Your task to perform on an android device: Show me popular games on the Play Store Image 0: 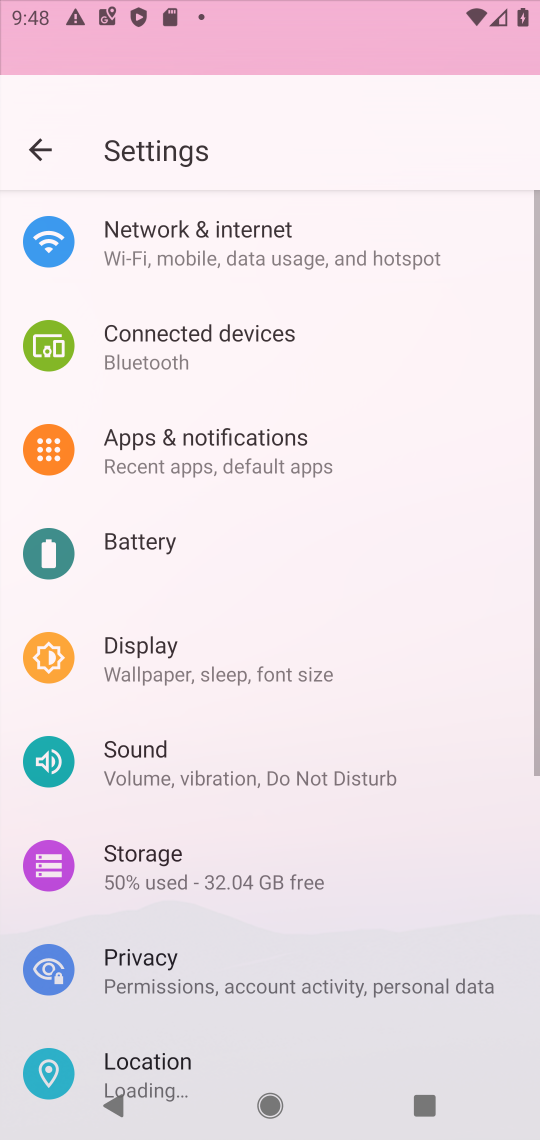
Step 0: press home button
Your task to perform on an android device: Show me popular games on the Play Store Image 1: 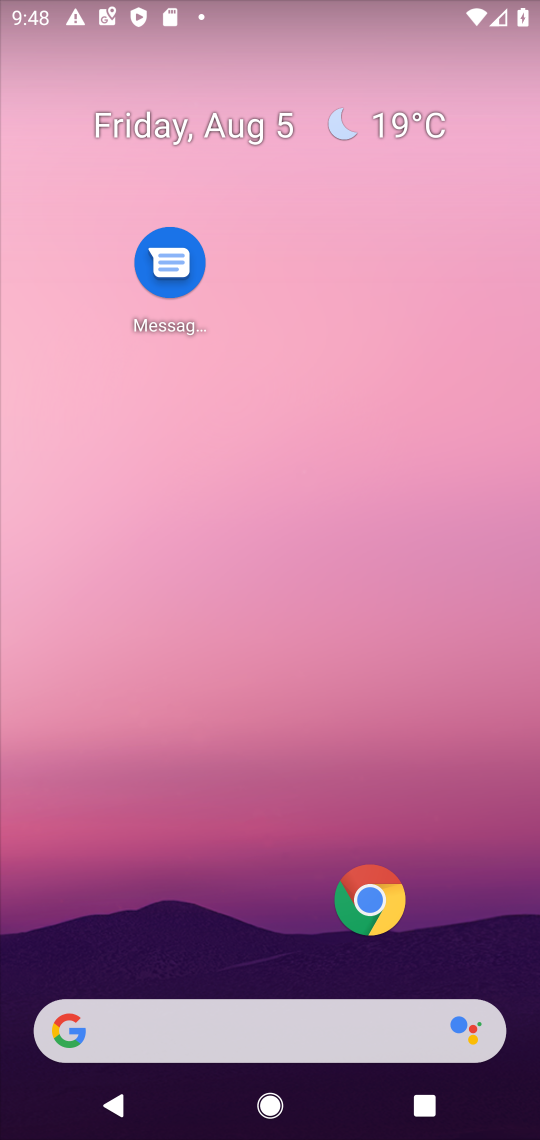
Step 1: press home button
Your task to perform on an android device: Show me popular games on the Play Store Image 2: 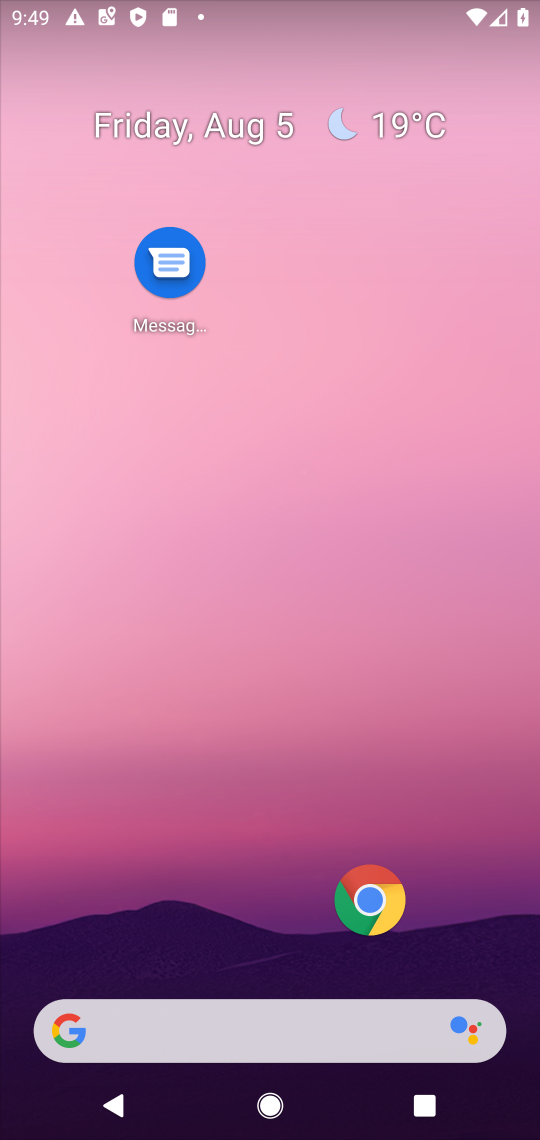
Step 2: drag from (197, 913) to (188, 175)
Your task to perform on an android device: Show me popular games on the Play Store Image 3: 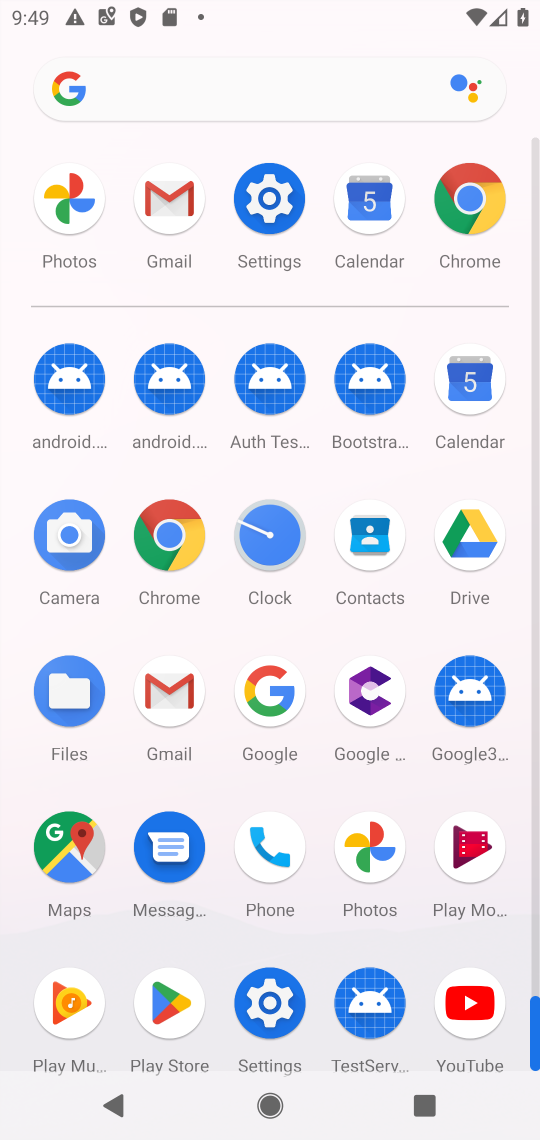
Step 3: click (481, 205)
Your task to perform on an android device: Show me popular games on the Play Store Image 4: 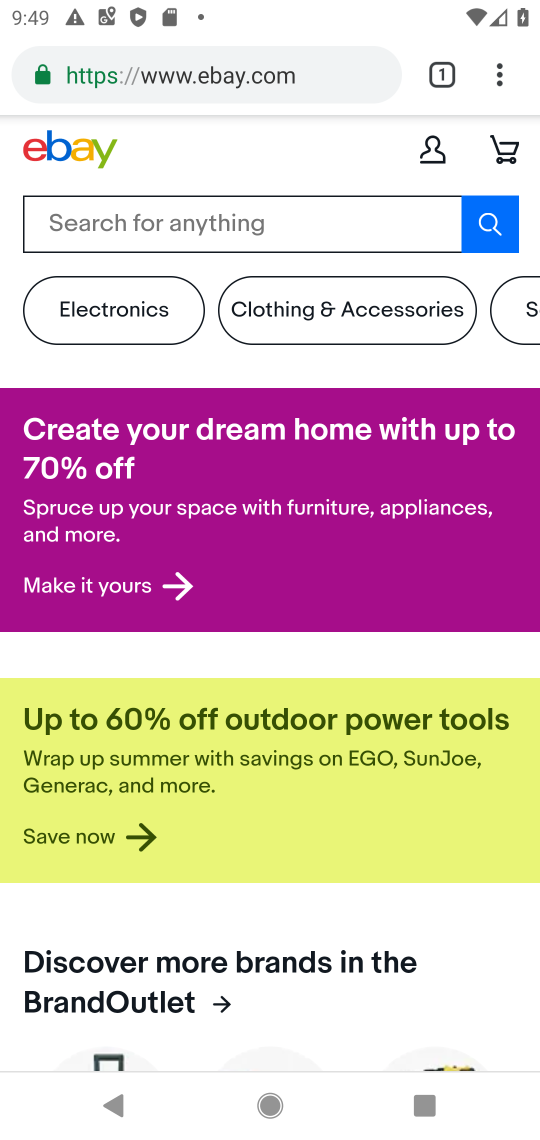
Step 4: press home button
Your task to perform on an android device: Show me popular games on the Play Store Image 5: 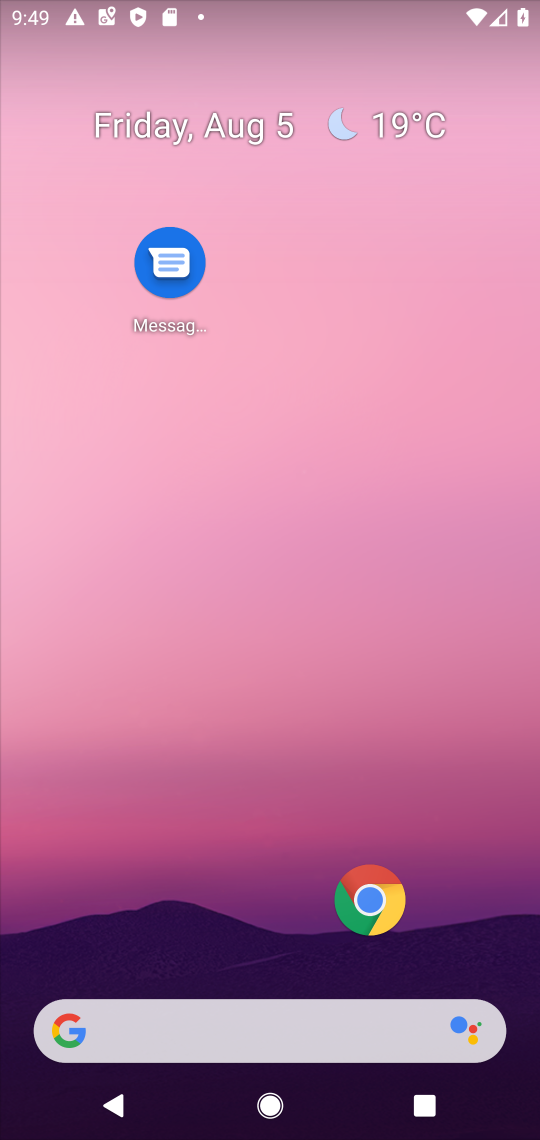
Step 5: drag from (112, 1030) to (114, 651)
Your task to perform on an android device: Show me popular games on the Play Store Image 6: 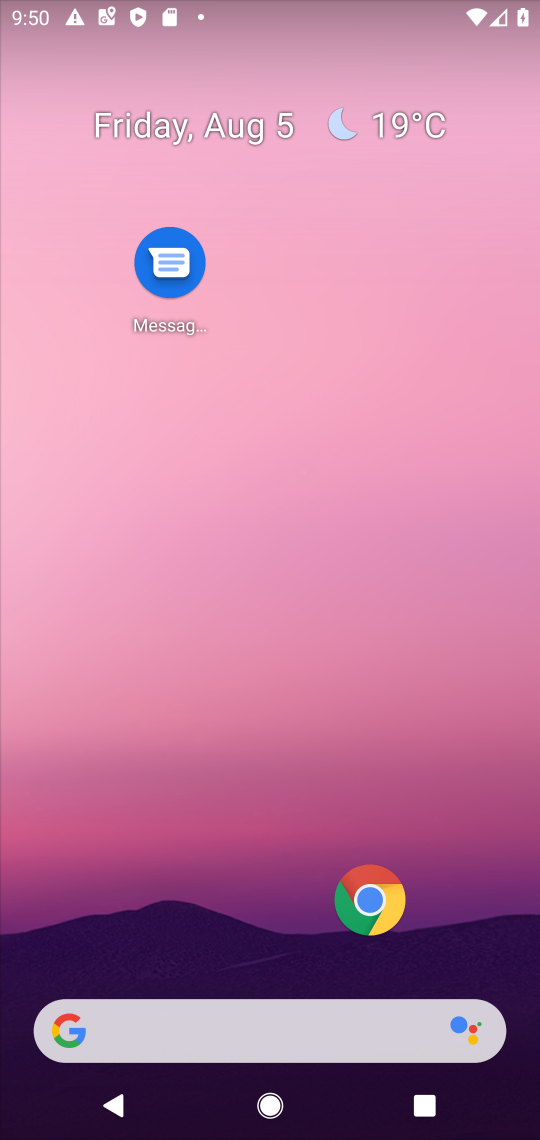
Step 6: press home button
Your task to perform on an android device: Show me popular games on the Play Store Image 7: 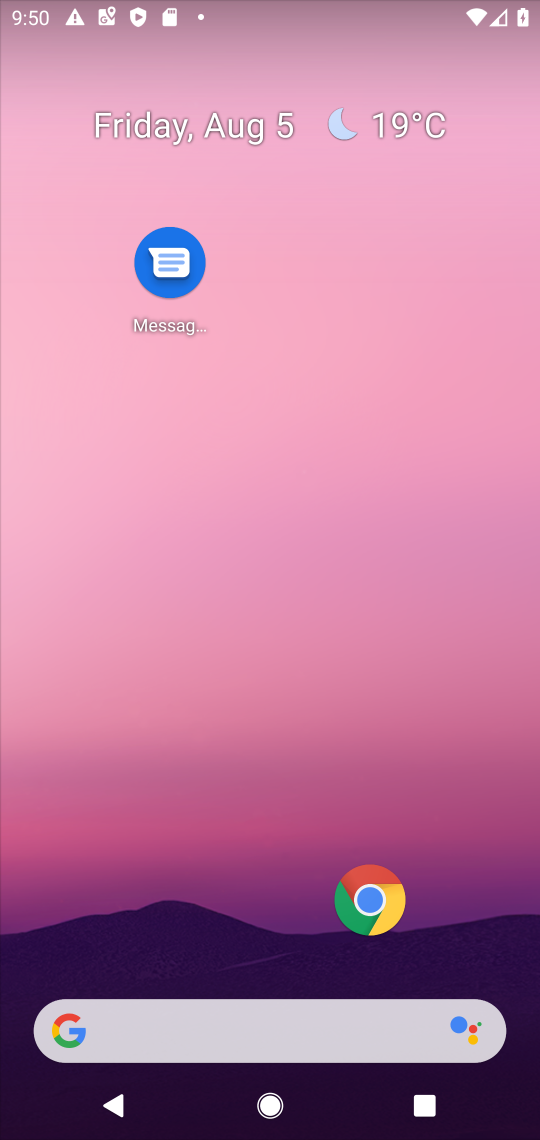
Step 7: drag from (258, 964) to (315, 1)
Your task to perform on an android device: Show me popular games on the Play Store Image 8: 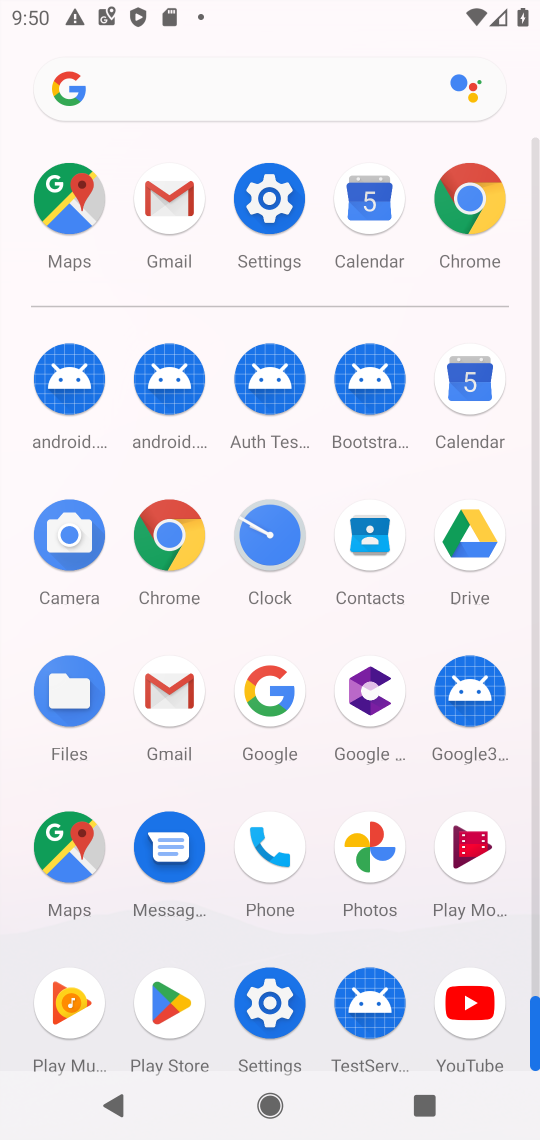
Step 8: click (171, 999)
Your task to perform on an android device: Show me popular games on the Play Store Image 9: 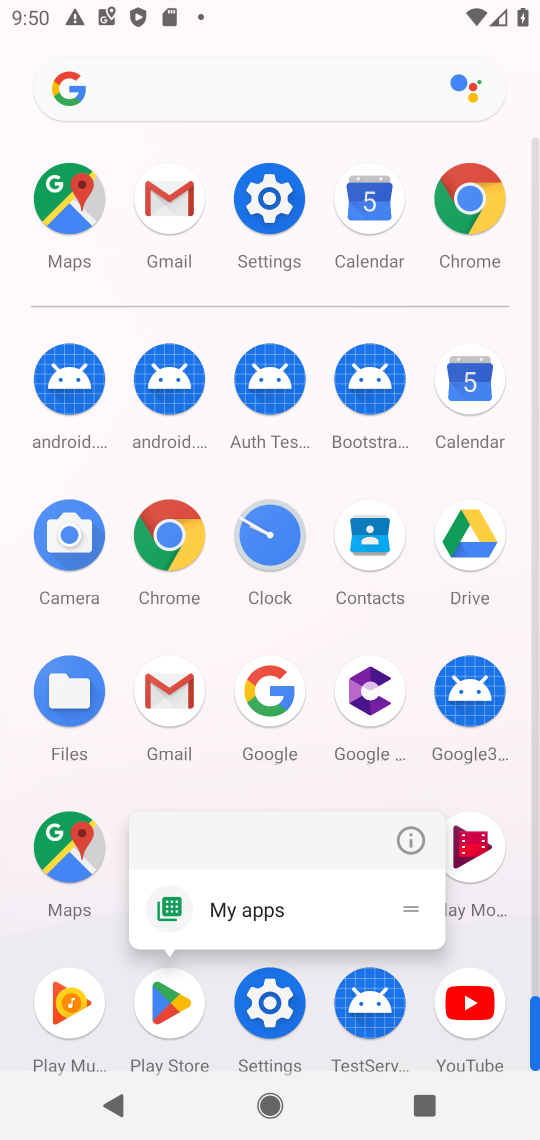
Step 9: click (155, 997)
Your task to perform on an android device: Show me popular games on the Play Store Image 10: 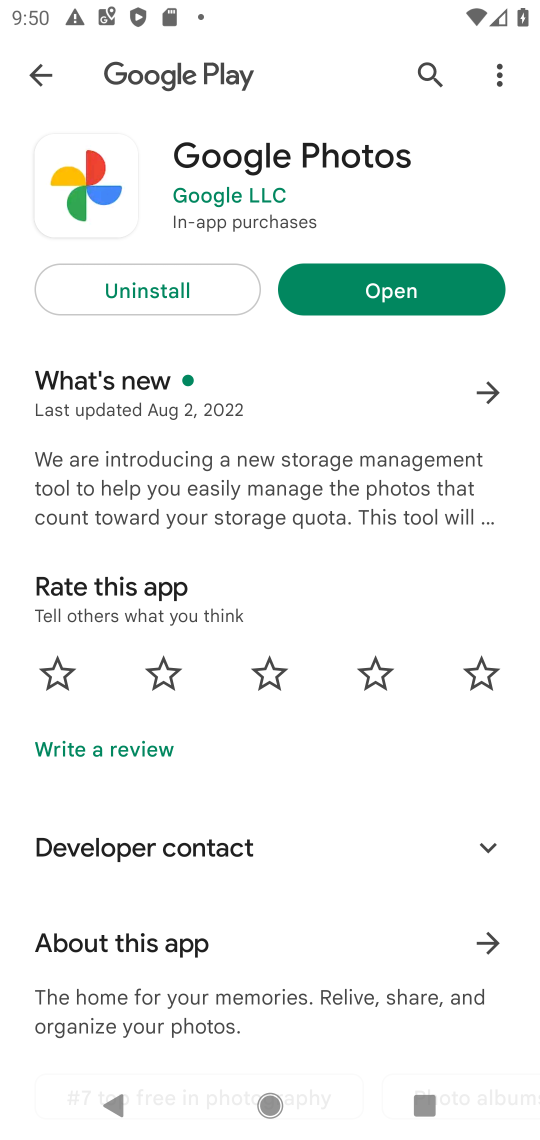
Step 10: click (34, 67)
Your task to perform on an android device: Show me popular games on the Play Store Image 11: 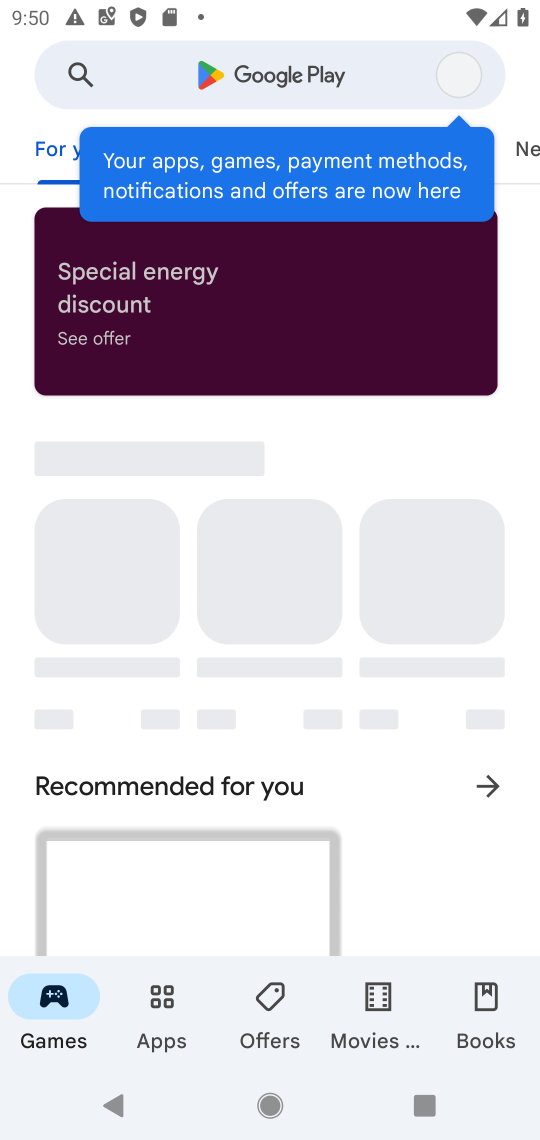
Step 11: click (124, 66)
Your task to perform on an android device: Show me popular games on the Play Store Image 12: 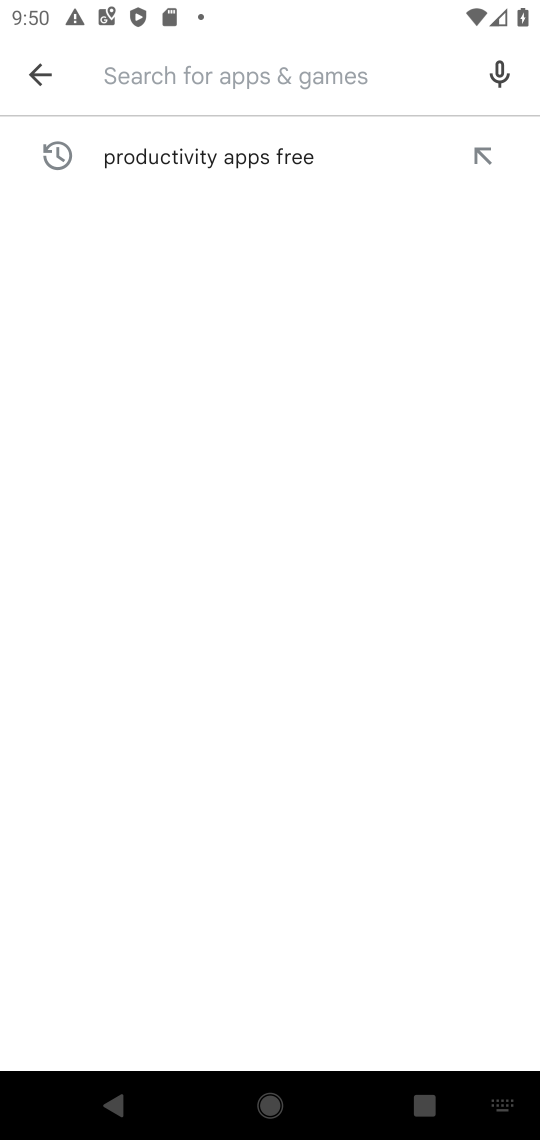
Step 12: type " popular games "
Your task to perform on an android device: Show me popular games on the Play Store Image 13: 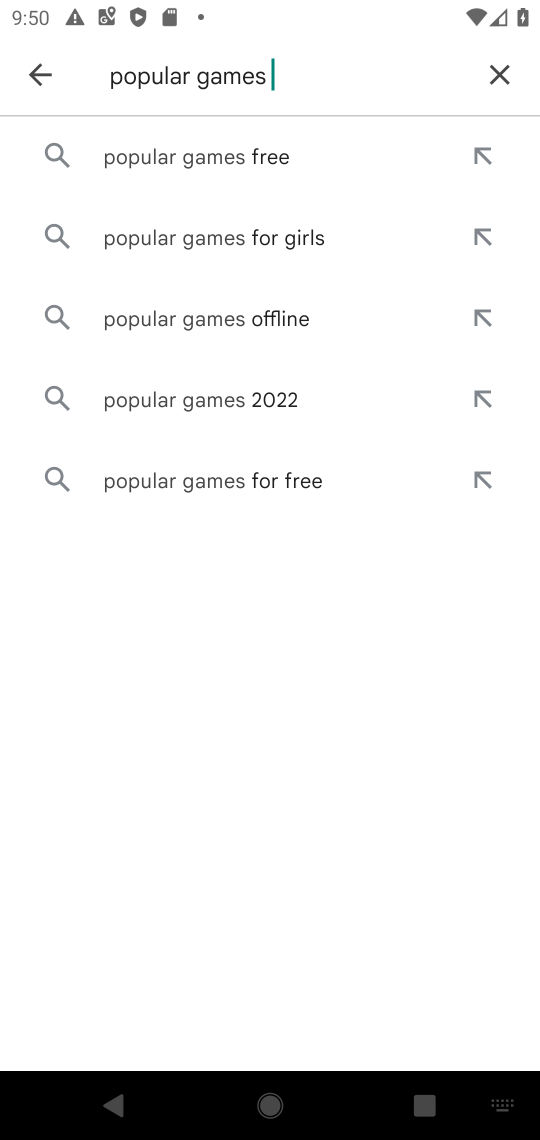
Step 13: click (193, 144)
Your task to perform on an android device: Show me popular games on the Play Store Image 14: 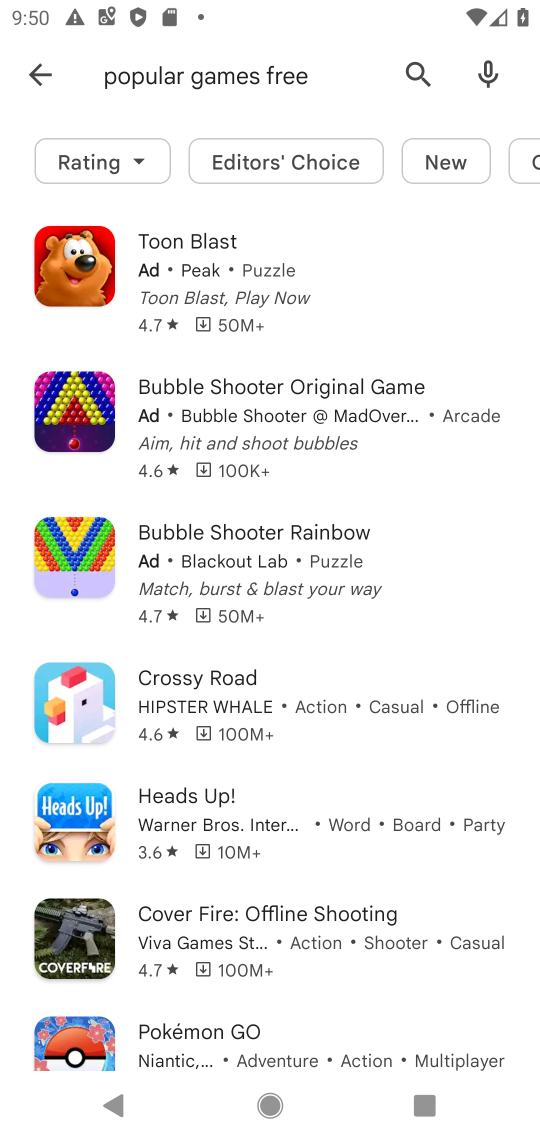
Step 14: task complete